Your task to perform on an android device: Search for Italian restaurants on Maps Image 0: 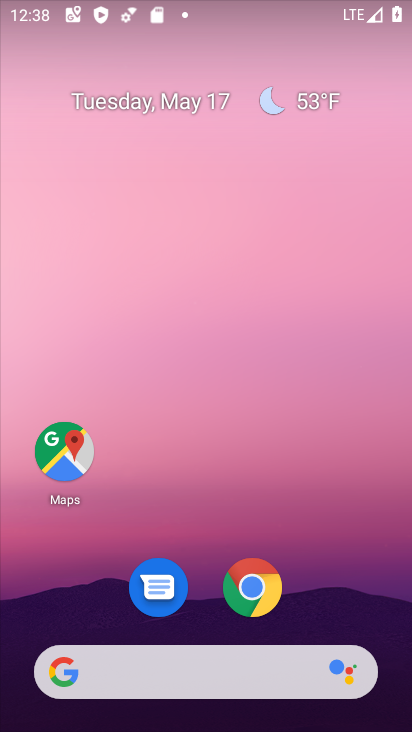
Step 0: drag from (221, 625) to (158, 13)
Your task to perform on an android device: Search for Italian restaurants on Maps Image 1: 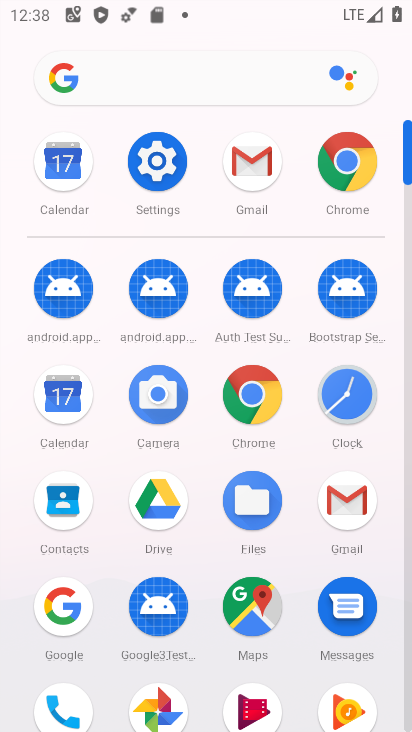
Step 1: click (241, 614)
Your task to perform on an android device: Search for Italian restaurants on Maps Image 2: 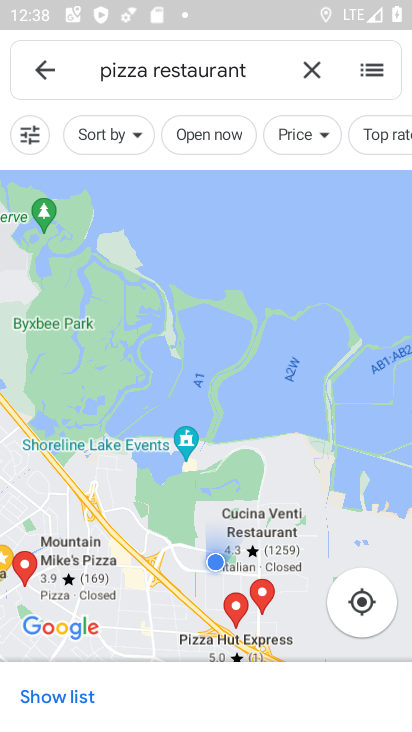
Step 2: click (308, 69)
Your task to perform on an android device: Search for Italian restaurants on Maps Image 3: 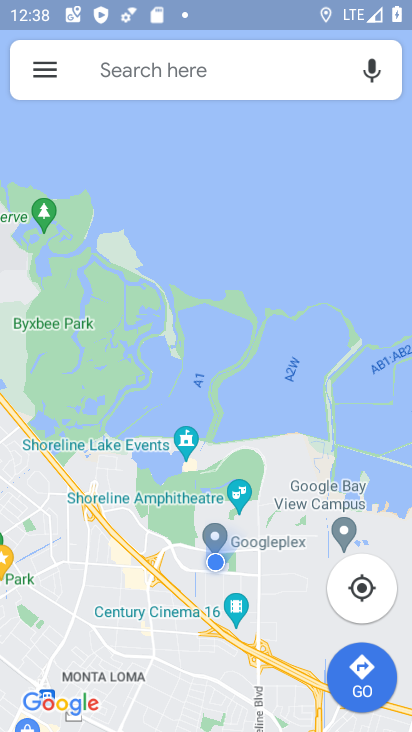
Step 3: click (175, 74)
Your task to perform on an android device: Search for Italian restaurants on Maps Image 4: 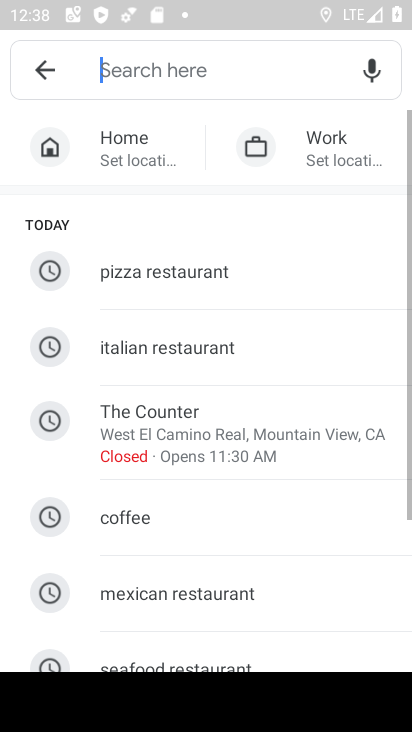
Step 4: click (223, 350)
Your task to perform on an android device: Search for Italian restaurants on Maps Image 5: 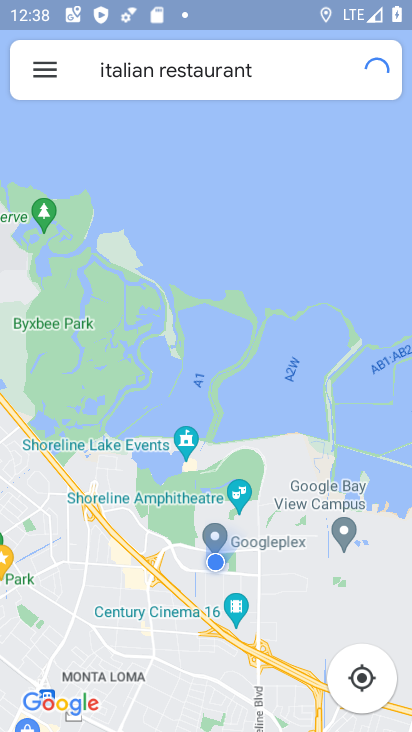
Step 5: task complete